Your task to perform on an android device: turn off location Image 0: 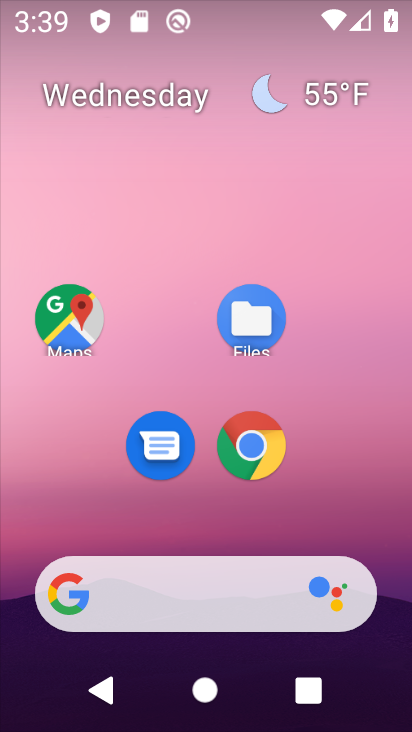
Step 0: drag from (321, 504) to (328, 54)
Your task to perform on an android device: turn off location Image 1: 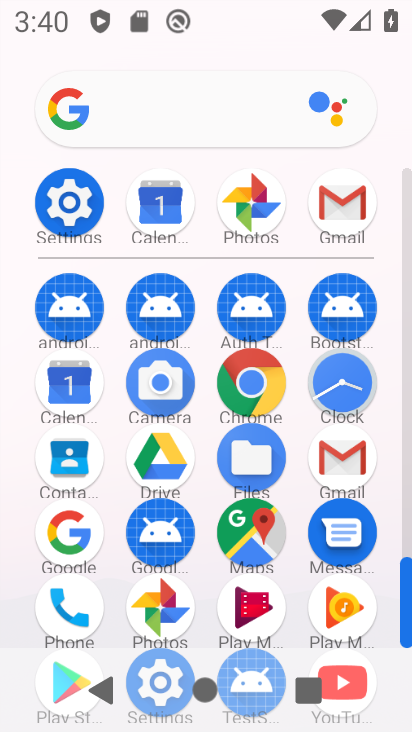
Step 1: click (67, 181)
Your task to perform on an android device: turn off location Image 2: 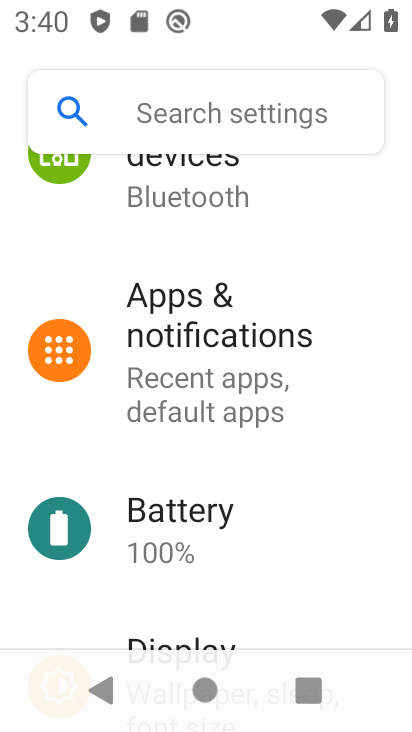
Step 2: drag from (202, 544) to (203, 247)
Your task to perform on an android device: turn off location Image 3: 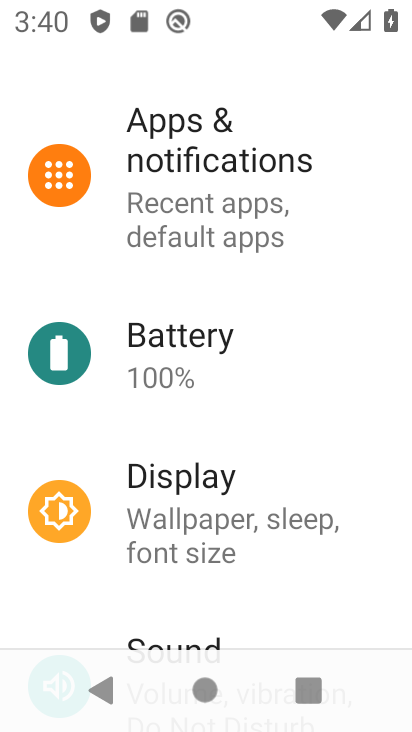
Step 3: drag from (184, 574) to (238, 169)
Your task to perform on an android device: turn off location Image 4: 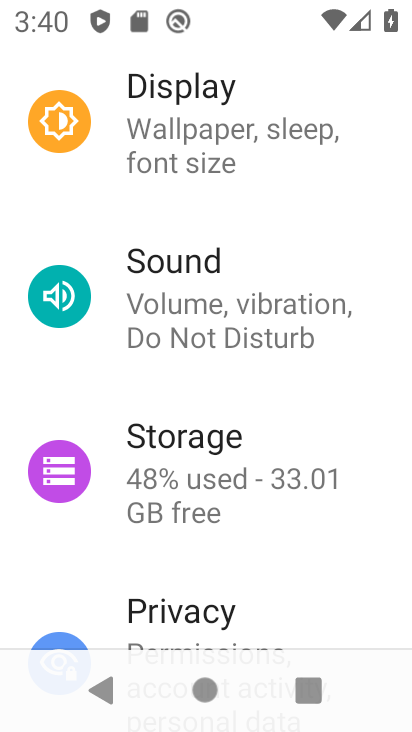
Step 4: drag from (221, 482) to (218, 100)
Your task to perform on an android device: turn off location Image 5: 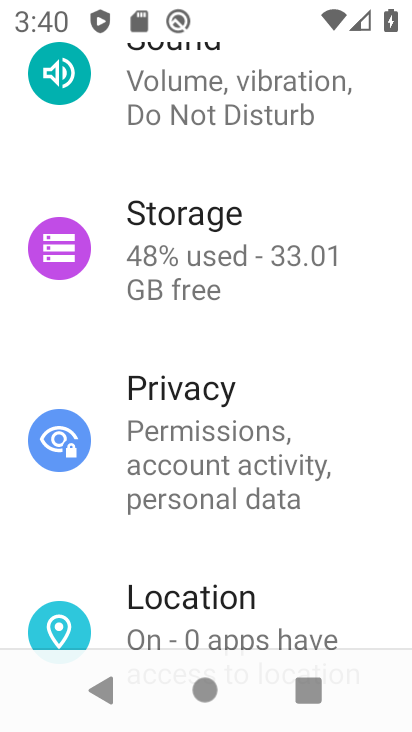
Step 5: click (196, 622)
Your task to perform on an android device: turn off location Image 6: 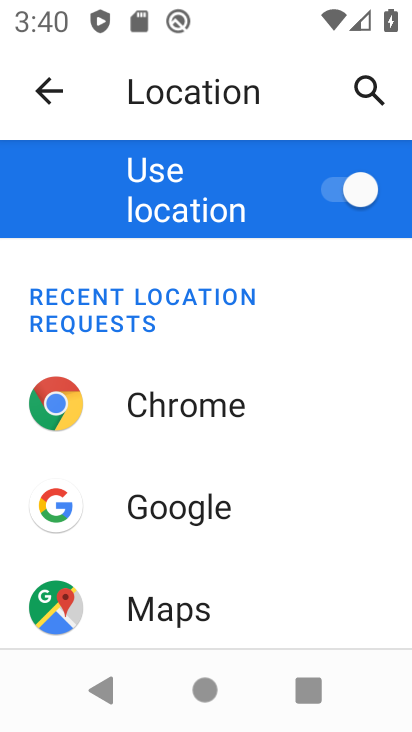
Step 6: click (349, 194)
Your task to perform on an android device: turn off location Image 7: 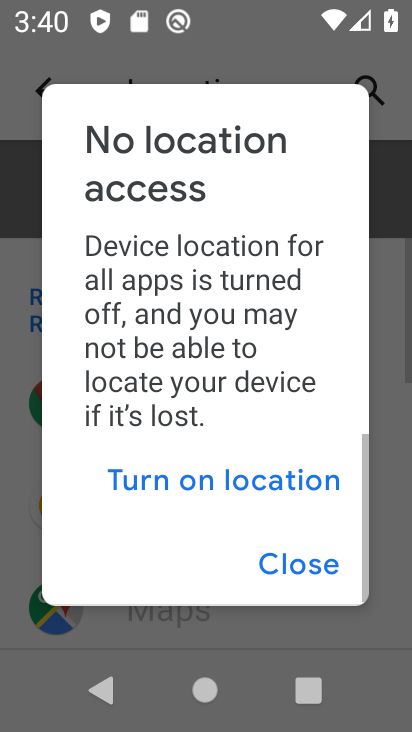
Step 7: task complete